Your task to perform on an android device: Go to Yahoo.com Image 0: 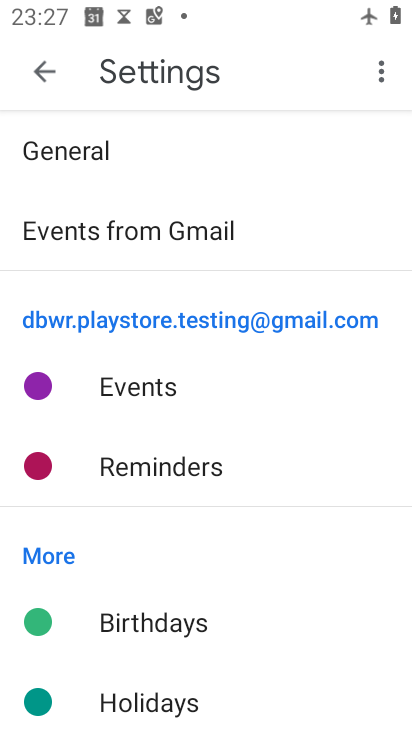
Step 0: press home button
Your task to perform on an android device: Go to Yahoo.com Image 1: 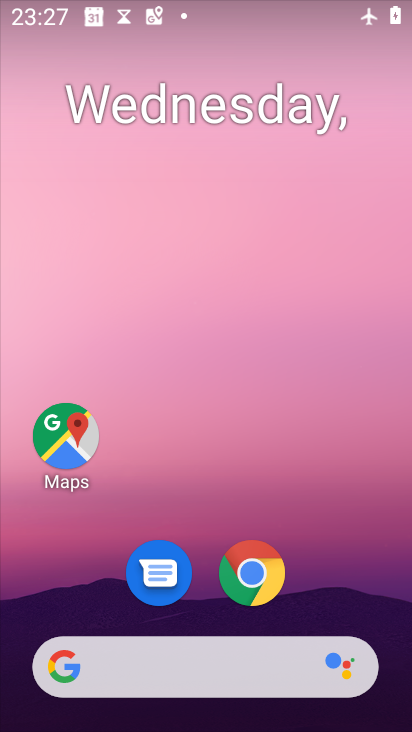
Step 1: click (262, 560)
Your task to perform on an android device: Go to Yahoo.com Image 2: 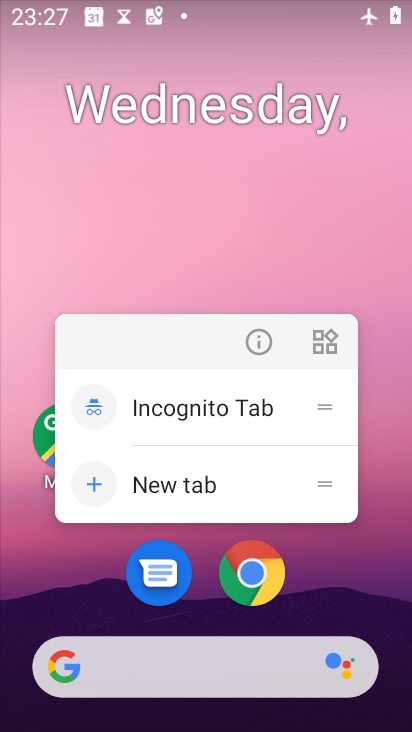
Step 2: click (244, 562)
Your task to perform on an android device: Go to Yahoo.com Image 3: 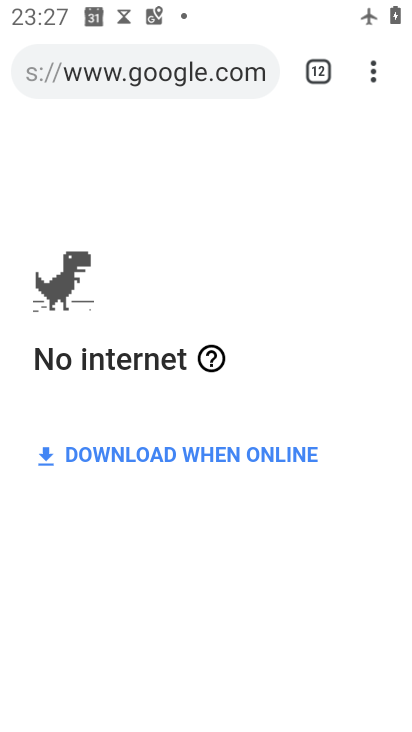
Step 3: click (363, 69)
Your task to perform on an android device: Go to Yahoo.com Image 4: 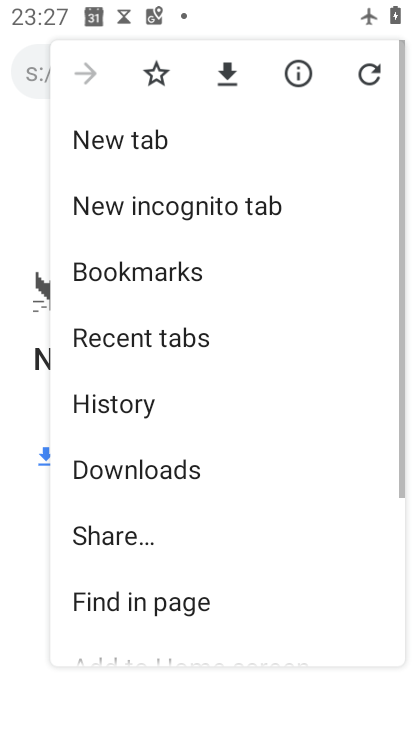
Step 4: click (172, 130)
Your task to perform on an android device: Go to Yahoo.com Image 5: 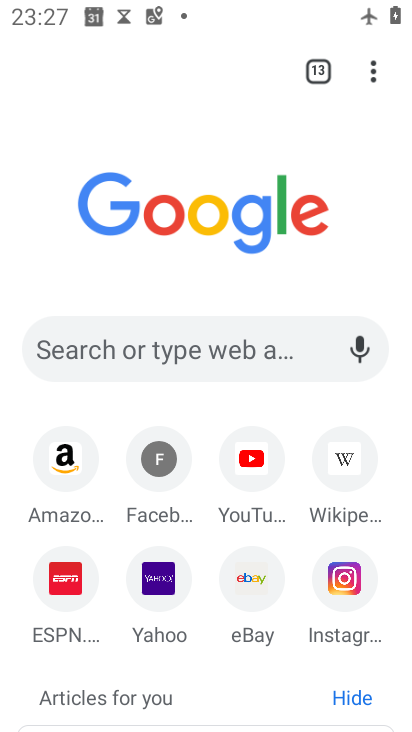
Step 5: click (142, 575)
Your task to perform on an android device: Go to Yahoo.com Image 6: 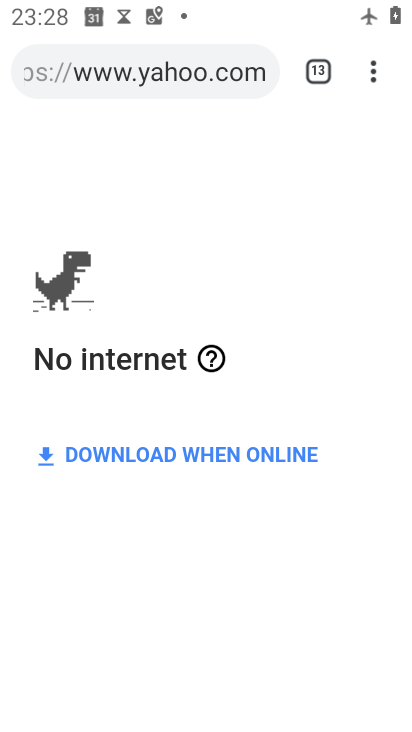
Step 6: task complete